Your task to perform on an android device: change the clock display to show seconds Image 0: 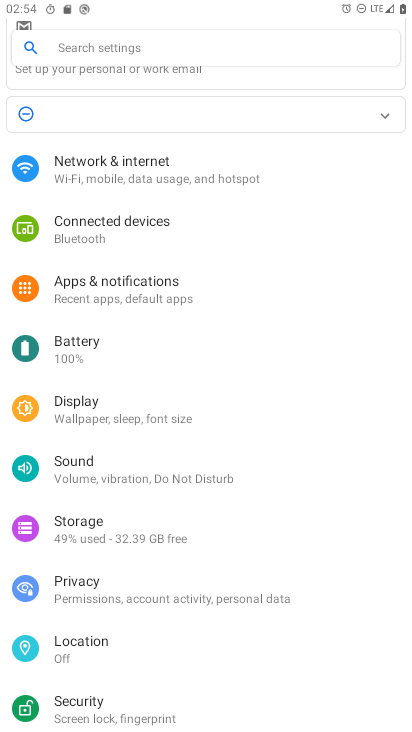
Step 0: press home button
Your task to perform on an android device: change the clock display to show seconds Image 1: 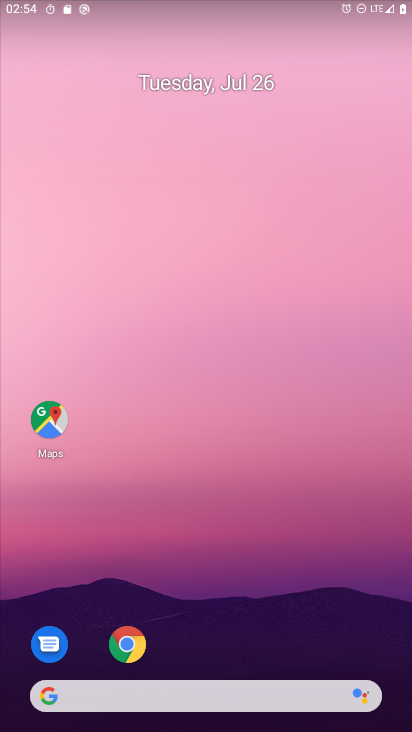
Step 1: drag from (212, 551) to (216, 35)
Your task to perform on an android device: change the clock display to show seconds Image 2: 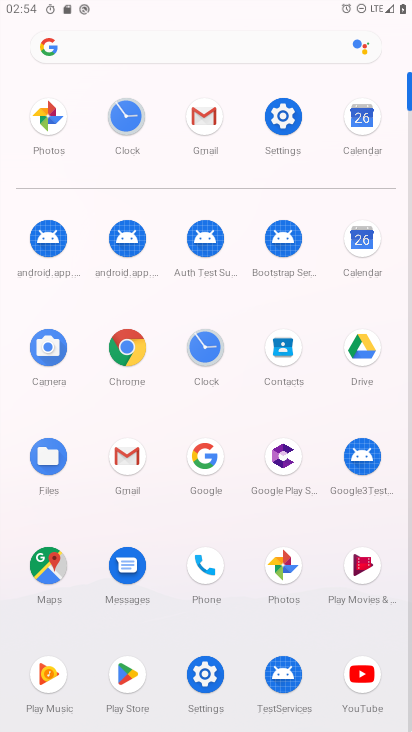
Step 2: click (125, 128)
Your task to perform on an android device: change the clock display to show seconds Image 3: 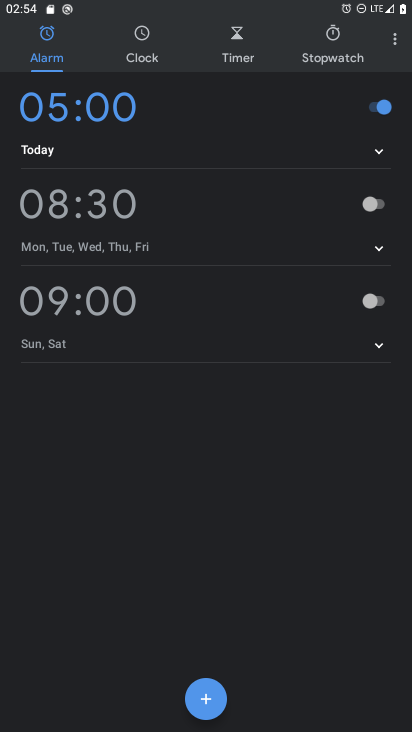
Step 3: click (396, 44)
Your task to perform on an android device: change the clock display to show seconds Image 4: 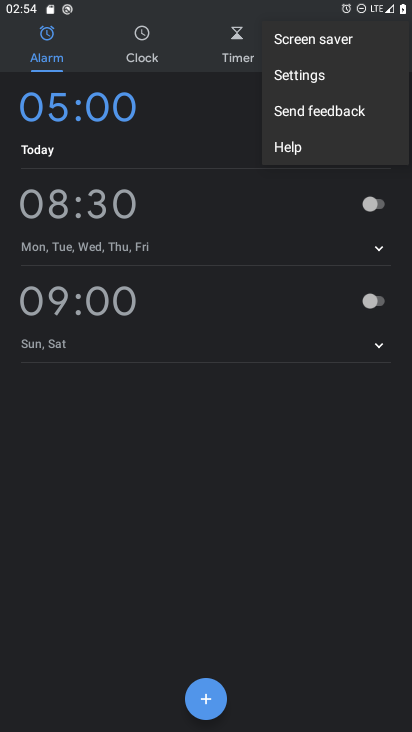
Step 4: click (312, 78)
Your task to perform on an android device: change the clock display to show seconds Image 5: 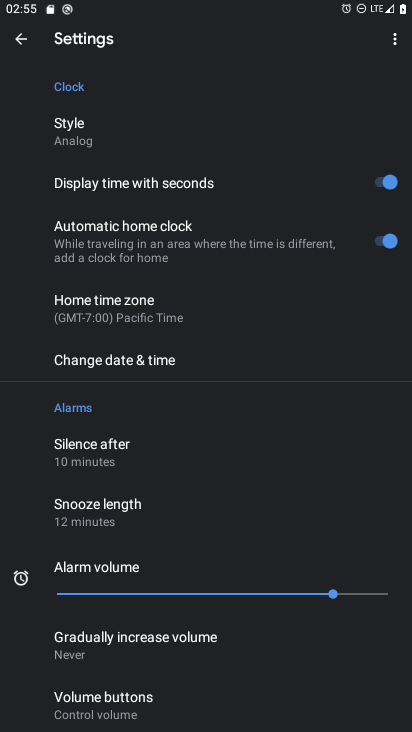
Step 5: task complete